Your task to perform on an android device: Open Google Maps Image 0: 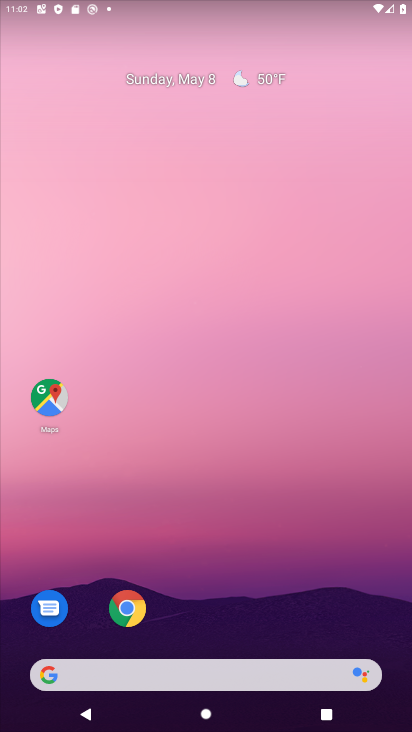
Step 0: drag from (277, 554) to (290, 65)
Your task to perform on an android device: Open Google Maps Image 1: 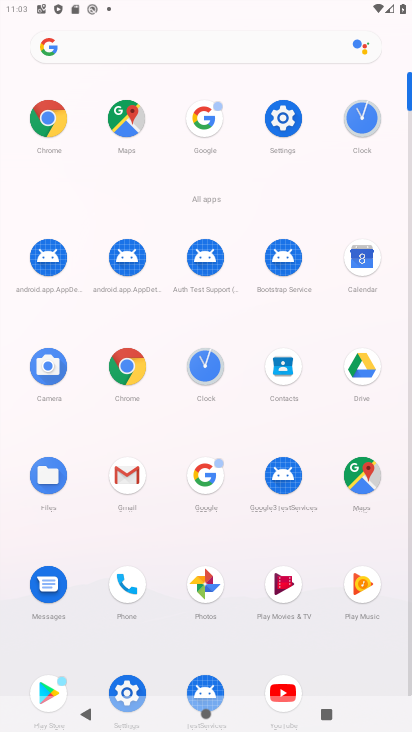
Step 1: click (130, 127)
Your task to perform on an android device: Open Google Maps Image 2: 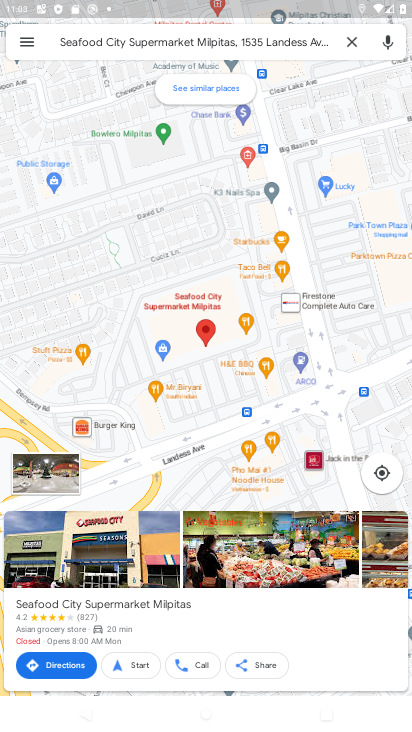
Step 2: task complete